Your task to perform on an android device: find photos in the google photos app Image 0: 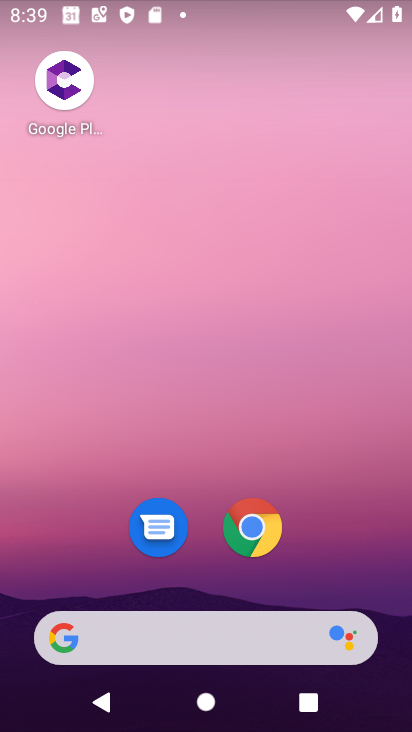
Step 0: drag from (214, 577) to (214, 126)
Your task to perform on an android device: find photos in the google photos app Image 1: 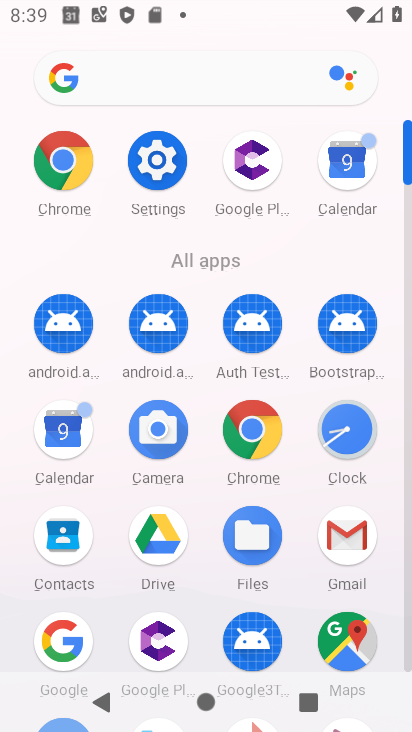
Step 1: drag from (113, 506) to (167, 188)
Your task to perform on an android device: find photos in the google photos app Image 2: 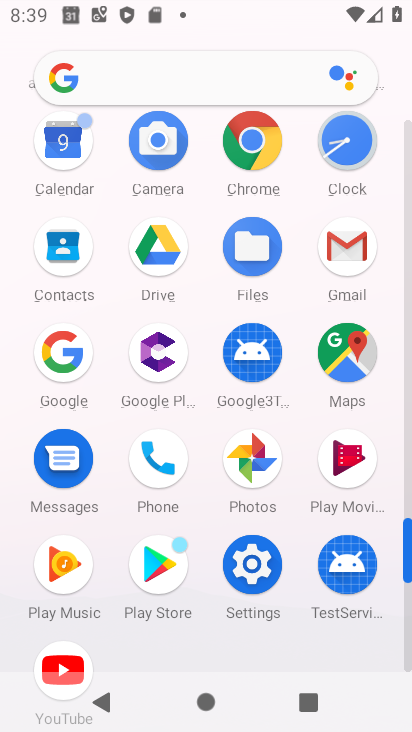
Step 2: click (260, 459)
Your task to perform on an android device: find photos in the google photos app Image 3: 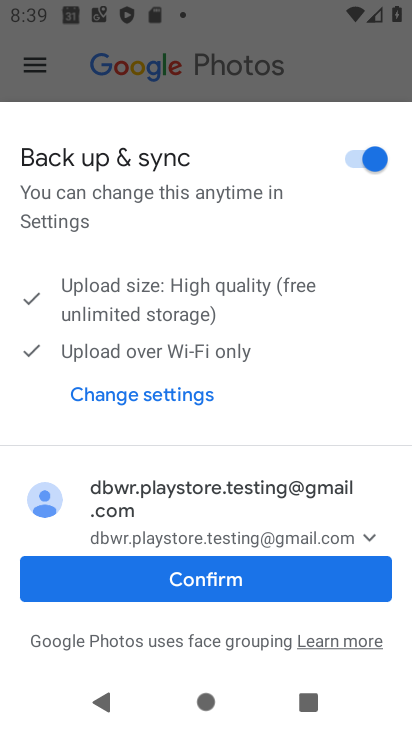
Step 3: click (191, 578)
Your task to perform on an android device: find photos in the google photos app Image 4: 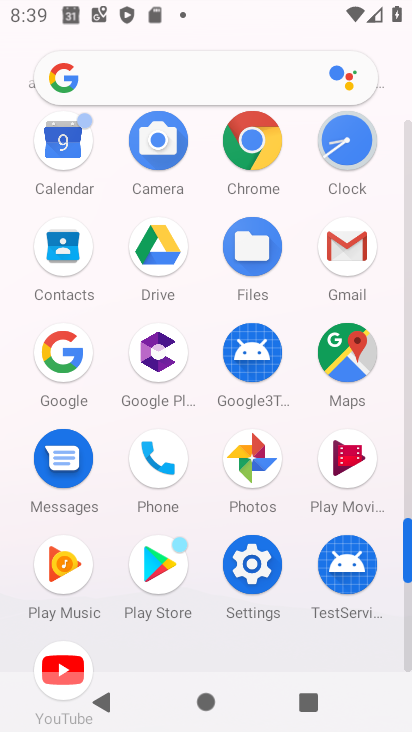
Step 4: click (264, 458)
Your task to perform on an android device: find photos in the google photos app Image 5: 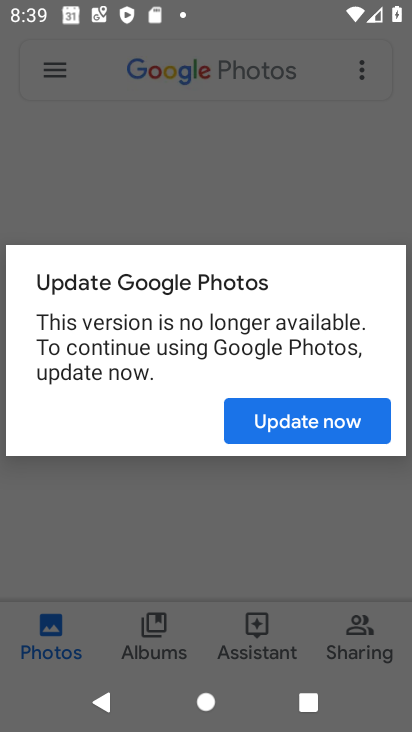
Step 5: click (298, 429)
Your task to perform on an android device: find photos in the google photos app Image 6: 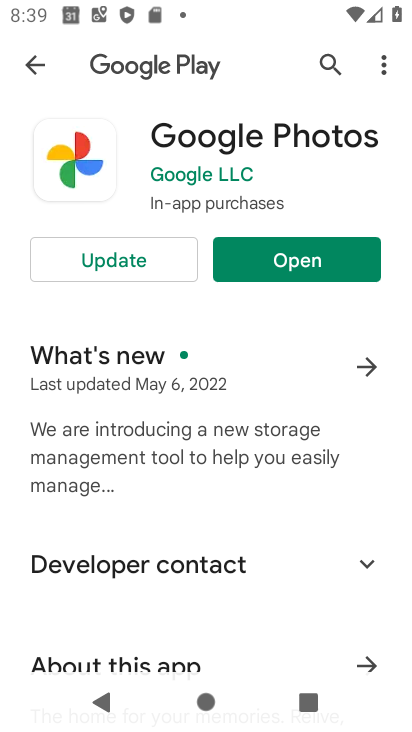
Step 6: click (281, 257)
Your task to perform on an android device: find photos in the google photos app Image 7: 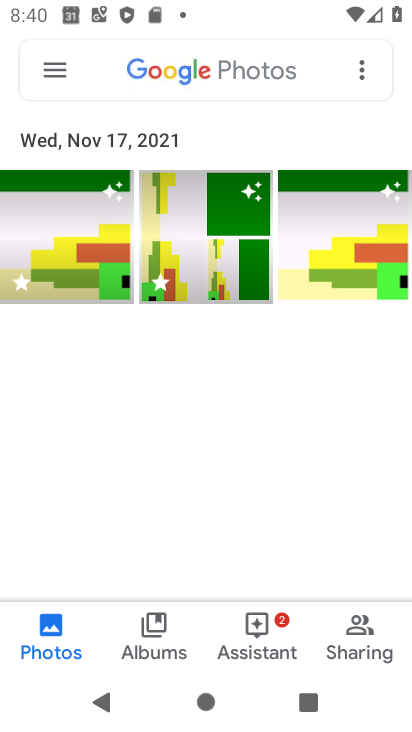
Step 7: task complete